Your task to perform on an android device: turn off airplane mode Image 0: 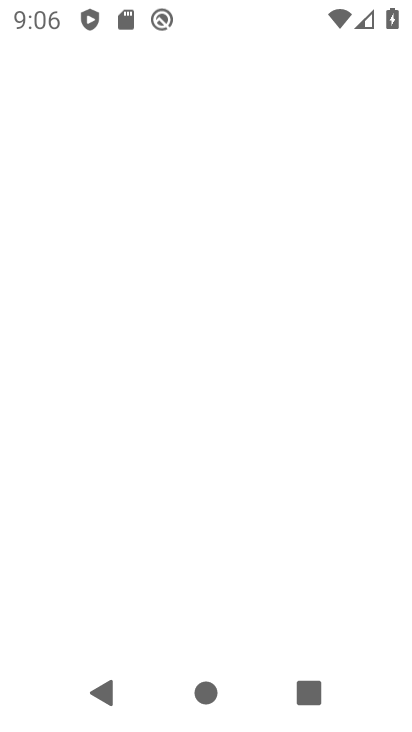
Step 0: press back button
Your task to perform on an android device: turn off airplane mode Image 1: 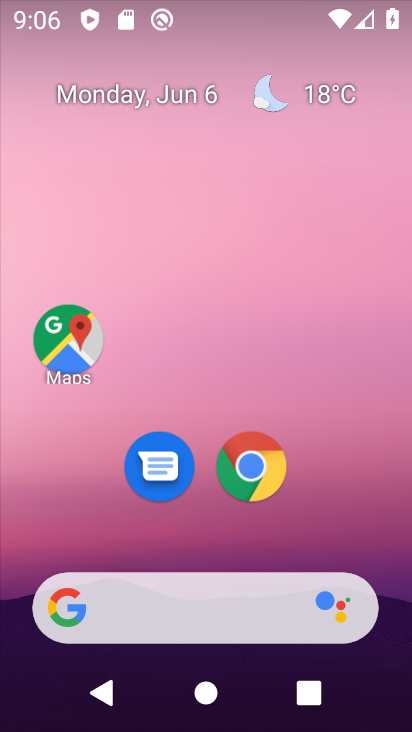
Step 1: drag from (242, 538) to (217, 68)
Your task to perform on an android device: turn off airplane mode Image 2: 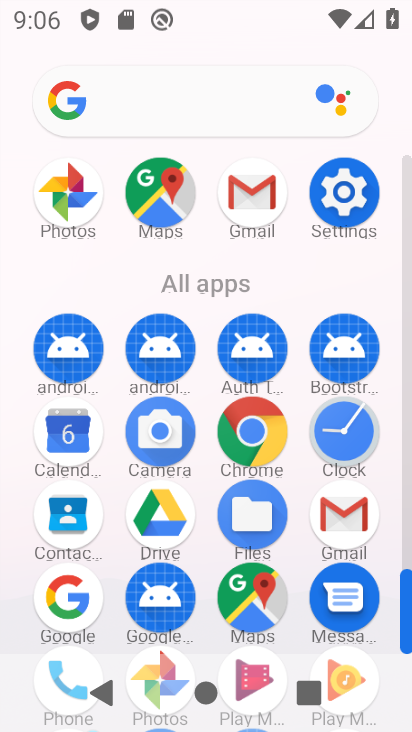
Step 2: click (333, 199)
Your task to perform on an android device: turn off airplane mode Image 3: 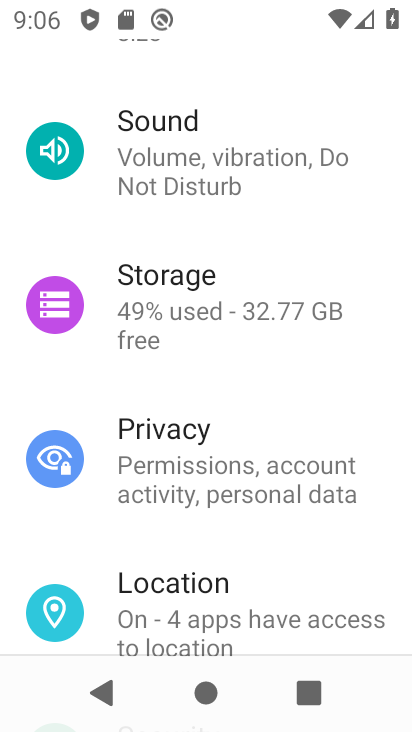
Step 3: drag from (245, 556) to (207, 190)
Your task to perform on an android device: turn off airplane mode Image 4: 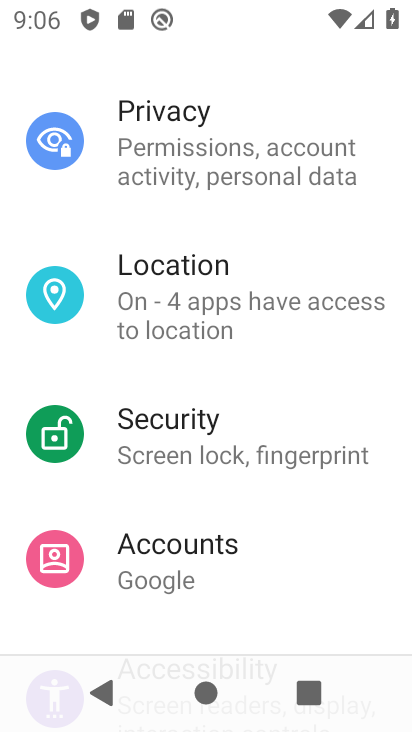
Step 4: drag from (216, 554) to (214, 278)
Your task to perform on an android device: turn off airplane mode Image 5: 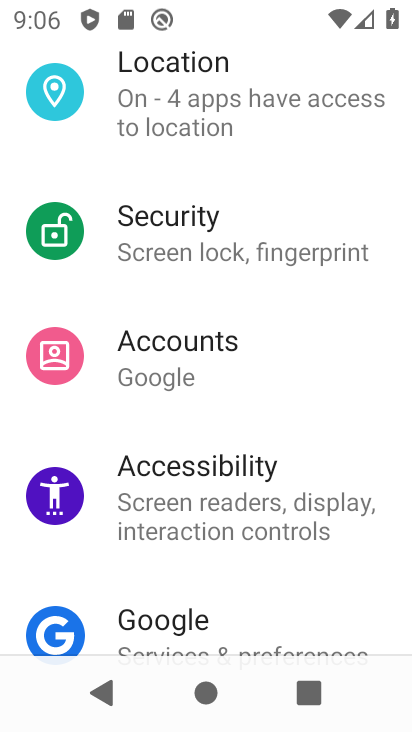
Step 5: drag from (212, 176) to (182, 599)
Your task to perform on an android device: turn off airplane mode Image 6: 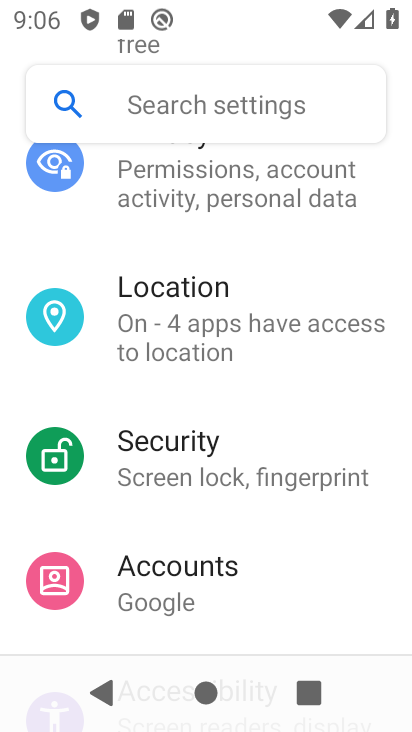
Step 6: drag from (218, 286) to (207, 726)
Your task to perform on an android device: turn off airplane mode Image 7: 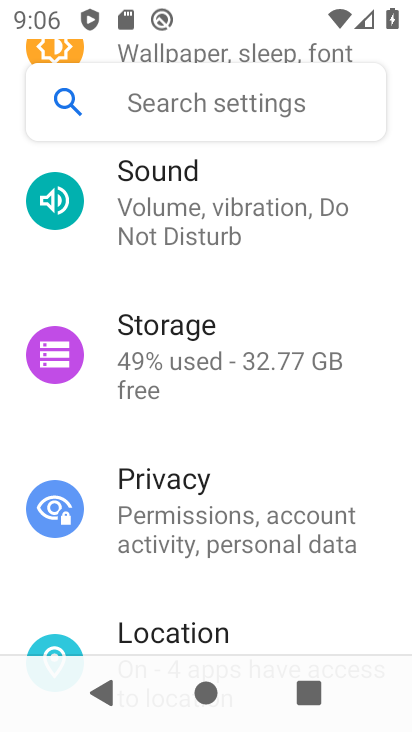
Step 7: drag from (189, 380) to (222, 681)
Your task to perform on an android device: turn off airplane mode Image 8: 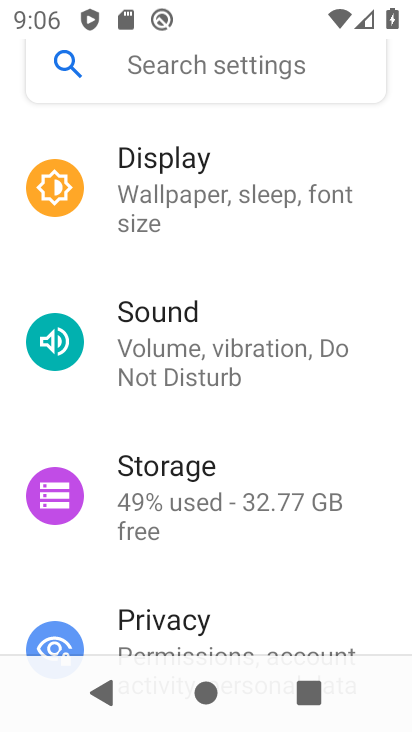
Step 8: drag from (235, 318) to (235, 717)
Your task to perform on an android device: turn off airplane mode Image 9: 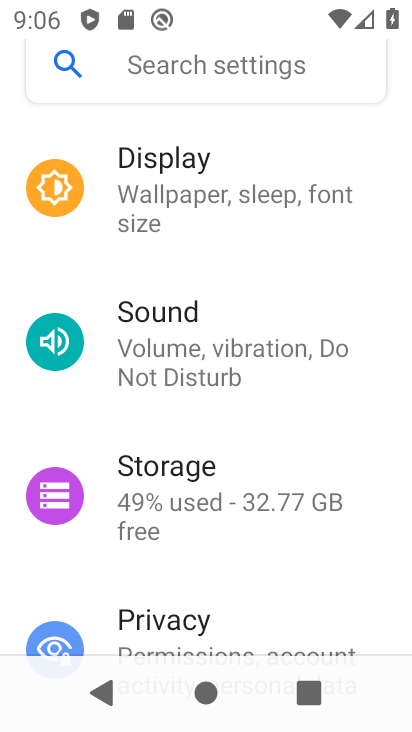
Step 9: drag from (245, 248) to (236, 689)
Your task to perform on an android device: turn off airplane mode Image 10: 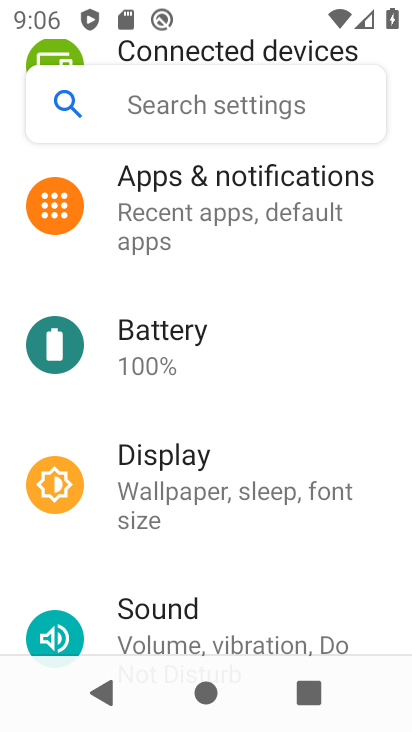
Step 10: drag from (219, 230) to (218, 555)
Your task to perform on an android device: turn off airplane mode Image 11: 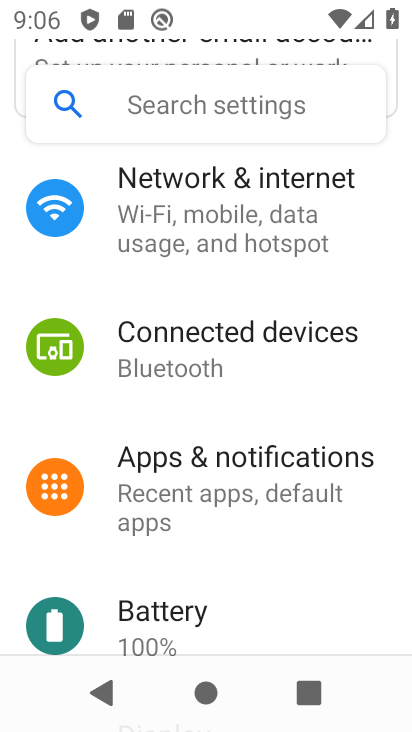
Step 11: click (169, 235)
Your task to perform on an android device: turn off airplane mode Image 12: 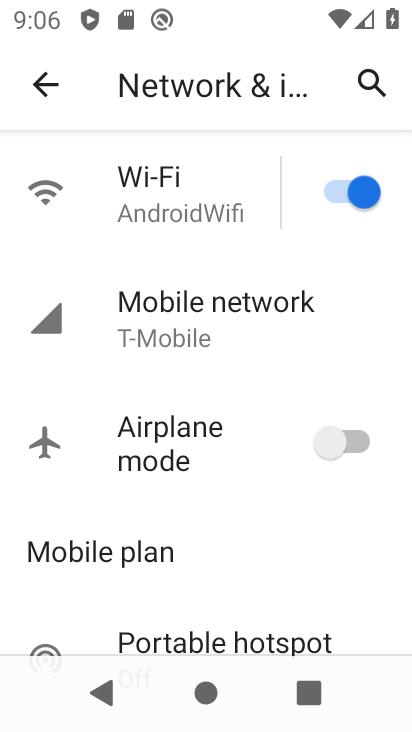
Step 12: task complete